Your task to perform on an android device: Open sound settings Image 0: 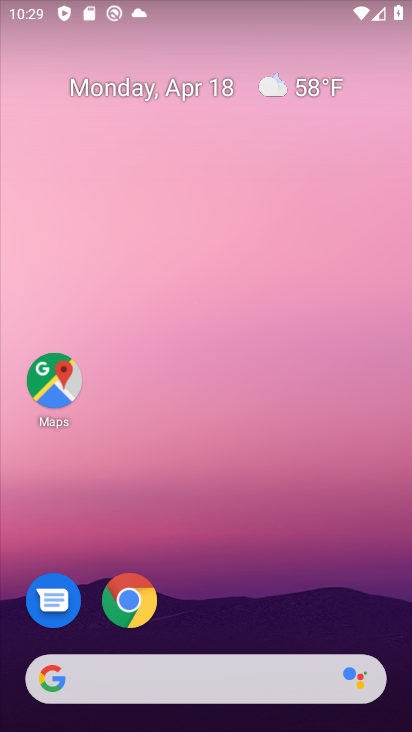
Step 0: drag from (216, 596) to (241, 28)
Your task to perform on an android device: Open sound settings Image 1: 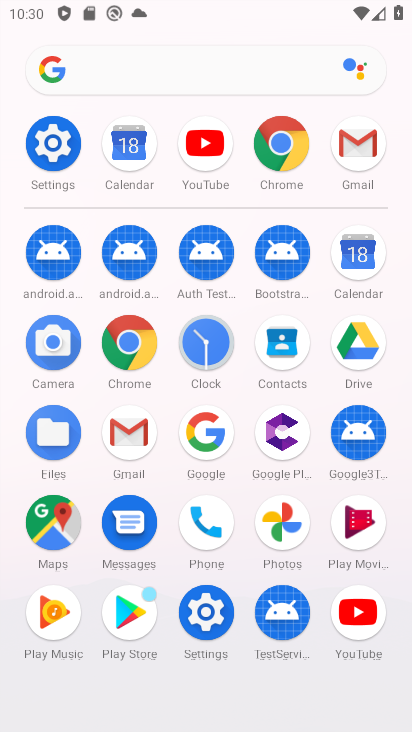
Step 1: click (53, 142)
Your task to perform on an android device: Open sound settings Image 2: 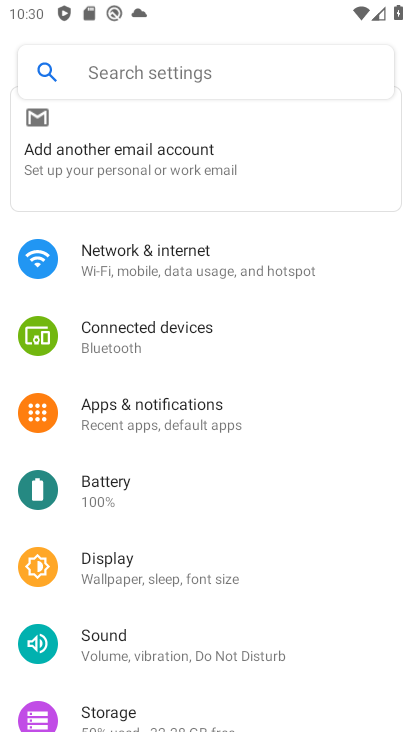
Step 2: click (115, 641)
Your task to perform on an android device: Open sound settings Image 3: 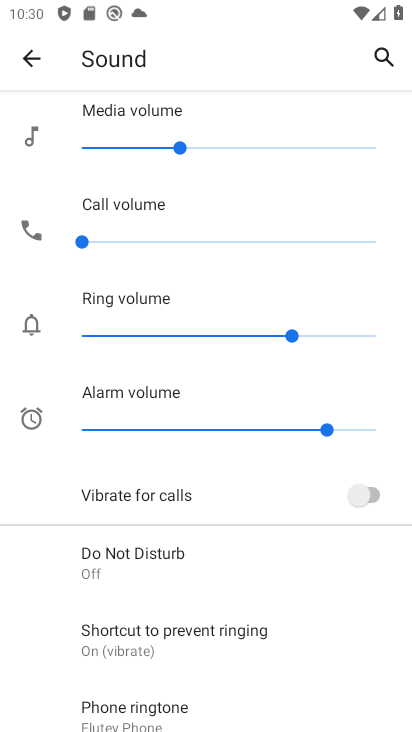
Step 3: task complete